Your task to perform on an android device: find which apps use the phone's location Image 0: 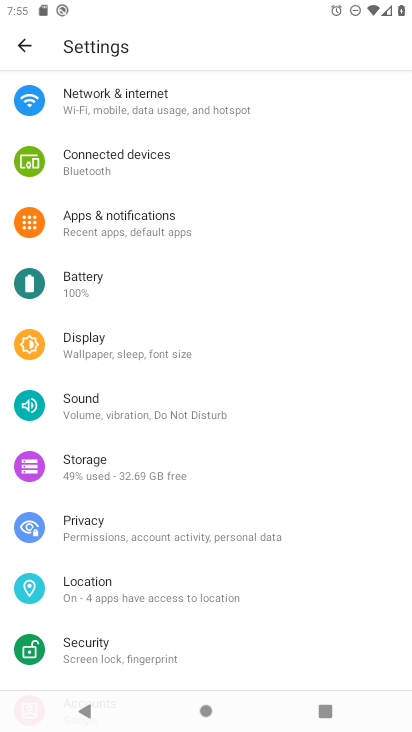
Step 0: press home button
Your task to perform on an android device: find which apps use the phone's location Image 1: 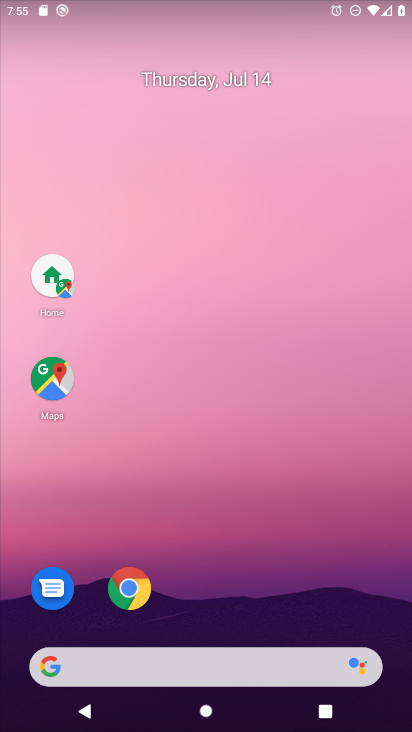
Step 1: drag from (37, 704) to (228, 10)
Your task to perform on an android device: find which apps use the phone's location Image 2: 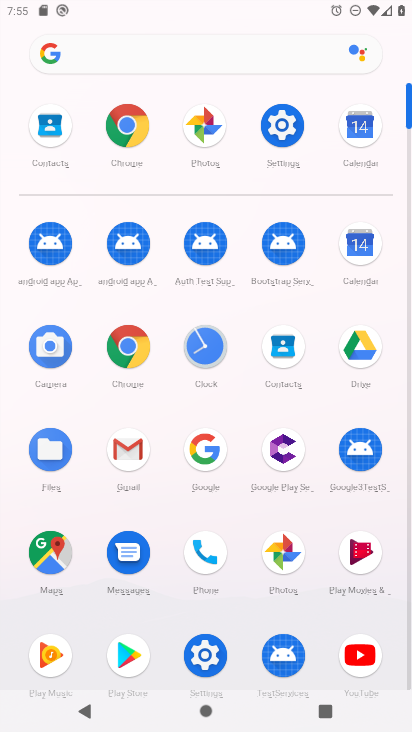
Step 2: click (208, 662)
Your task to perform on an android device: find which apps use the phone's location Image 3: 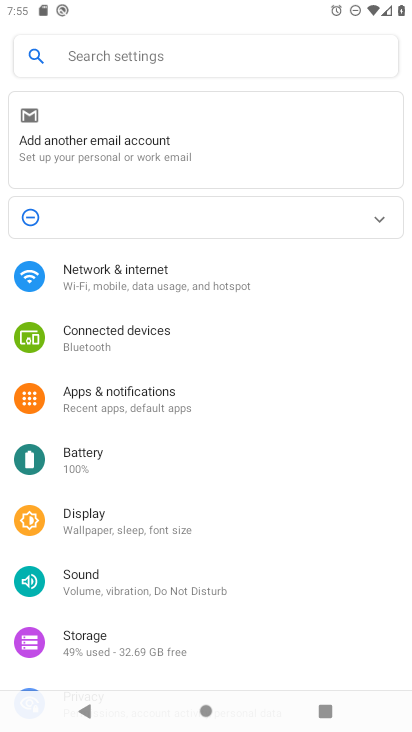
Step 3: drag from (351, 588) to (324, 345)
Your task to perform on an android device: find which apps use the phone's location Image 4: 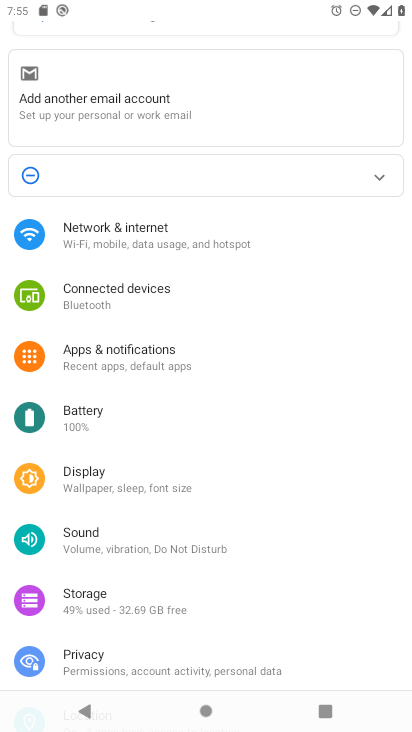
Step 4: drag from (301, 588) to (290, 414)
Your task to perform on an android device: find which apps use the phone's location Image 5: 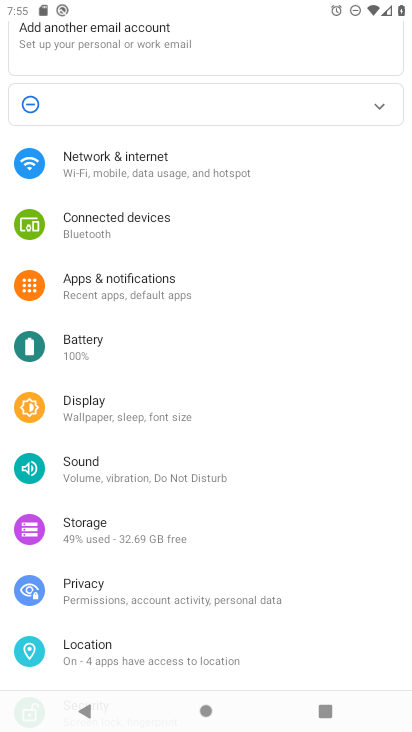
Step 5: click (92, 654)
Your task to perform on an android device: find which apps use the phone's location Image 6: 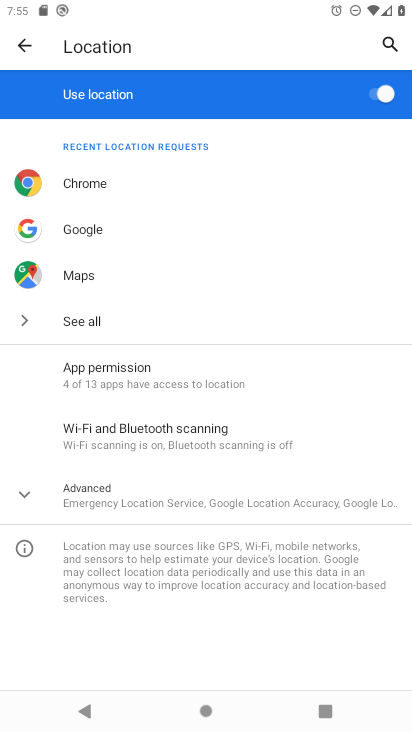
Step 6: click (150, 371)
Your task to perform on an android device: find which apps use the phone's location Image 7: 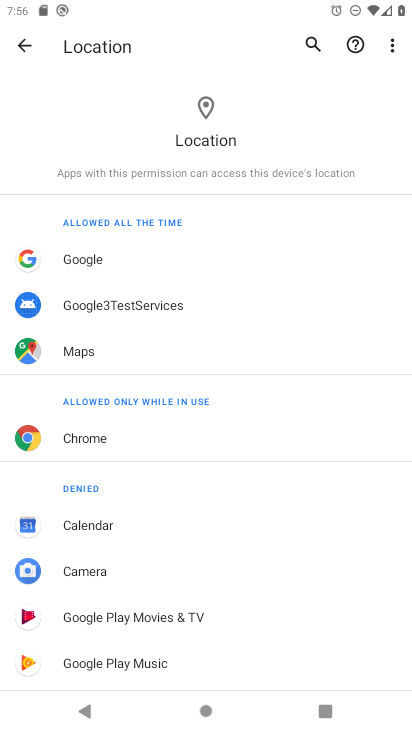
Step 7: task complete